Your task to perform on an android device: Open calendar and show me the first week of next month Image 0: 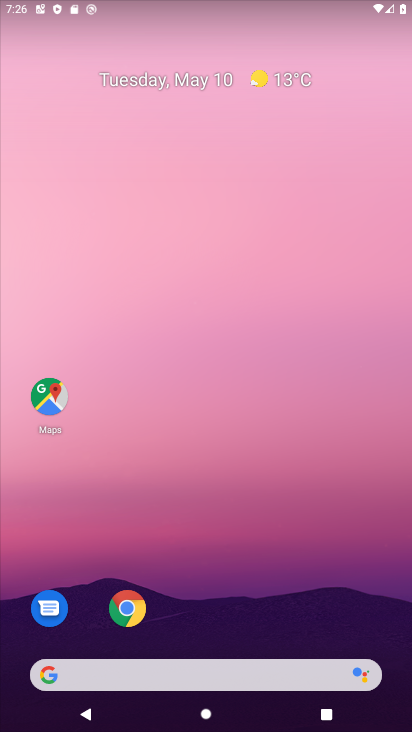
Step 0: drag from (234, 610) to (215, 92)
Your task to perform on an android device: Open calendar and show me the first week of next month Image 1: 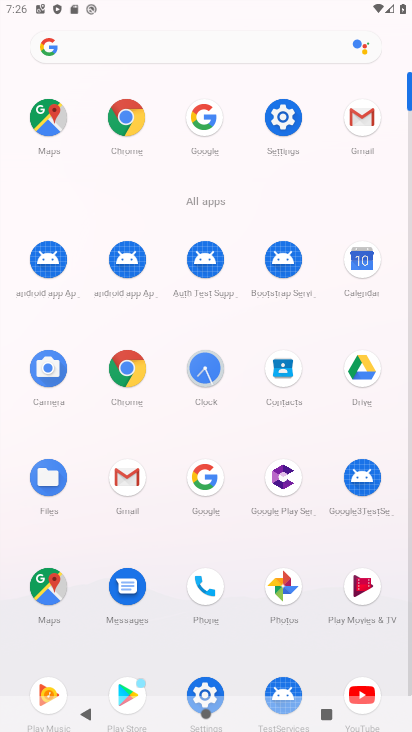
Step 1: click (364, 281)
Your task to perform on an android device: Open calendar and show me the first week of next month Image 2: 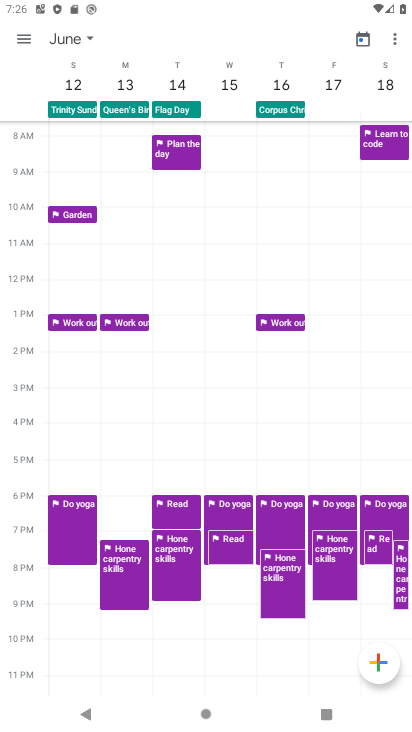
Step 2: click (75, 41)
Your task to perform on an android device: Open calendar and show me the first week of next month Image 3: 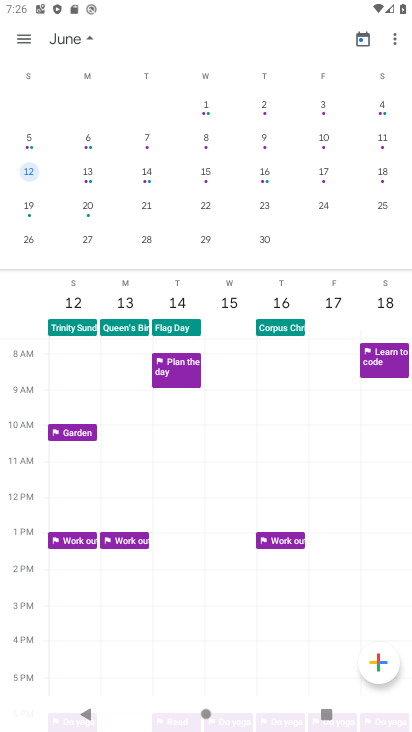
Step 3: click (31, 131)
Your task to perform on an android device: Open calendar and show me the first week of next month Image 4: 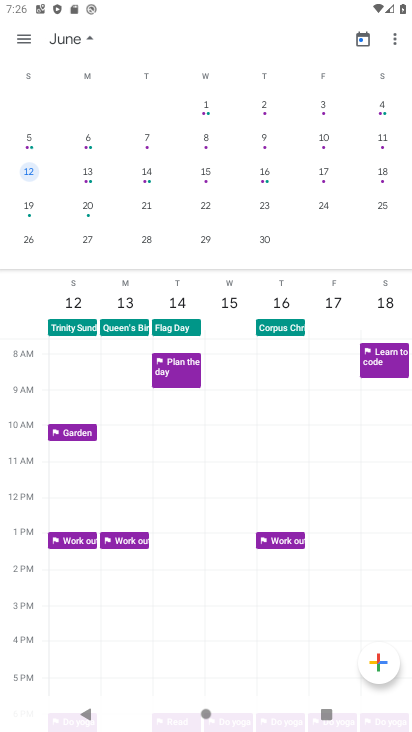
Step 4: click (31, 131)
Your task to perform on an android device: Open calendar and show me the first week of next month Image 5: 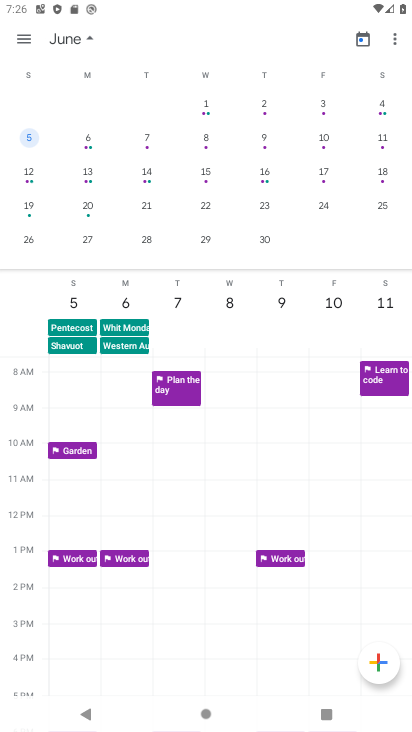
Step 5: task complete